Your task to perform on an android device: Toggle the flashlight Image 0: 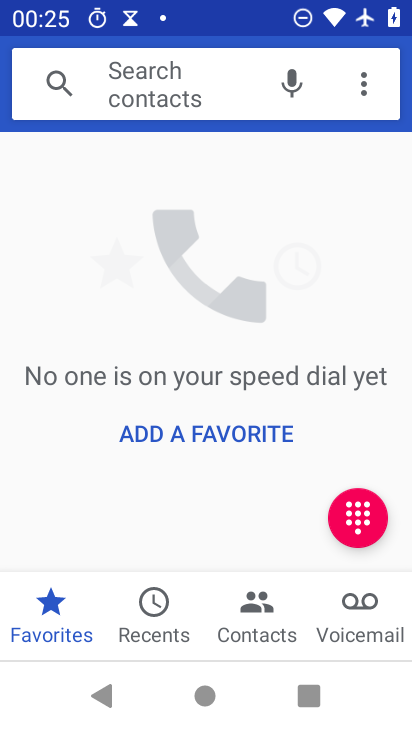
Step 0: press back button
Your task to perform on an android device: Toggle the flashlight Image 1: 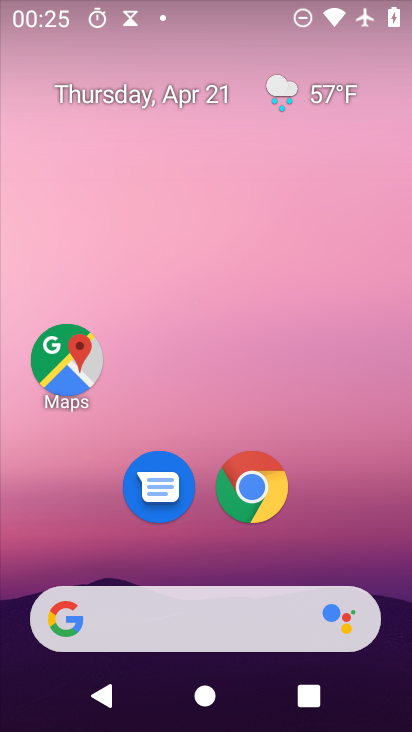
Step 1: drag from (325, 511) to (249, 43)
Your task to perform on an android device: Toggle the flashlight Image 2: 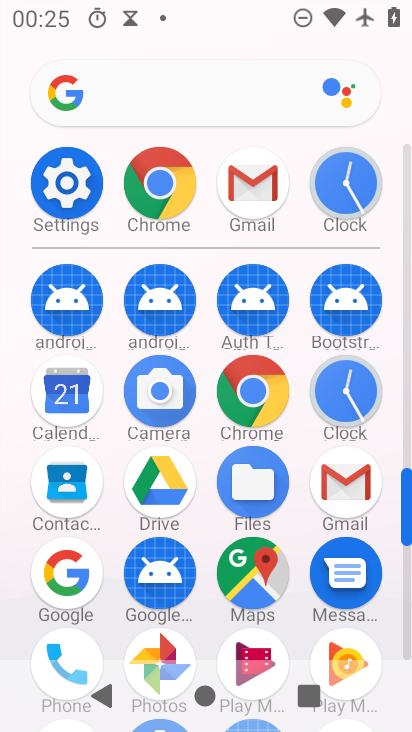
Step 2: click (60, 175)
Your task to perform on an android device: Toggle the flashlight Image 3: 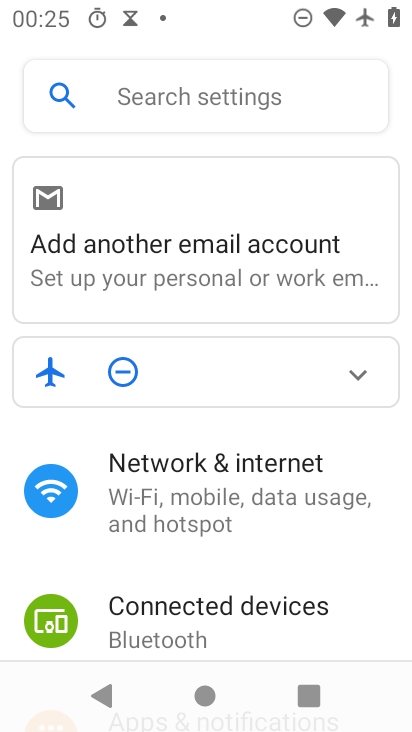
Step 3: drag from (295, 560) to (302, 164)
Your task to perform on an android device: Toggle the flashlight Image 4: 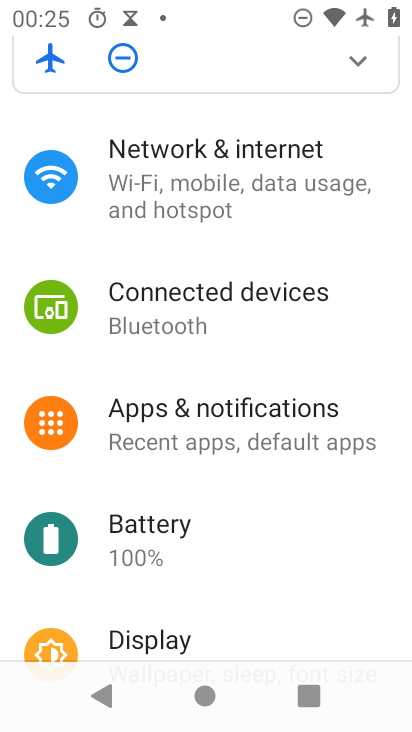
Step 4: click (283, 175)
Your task to perform on an android device: Toggle the flashlight Image 5: 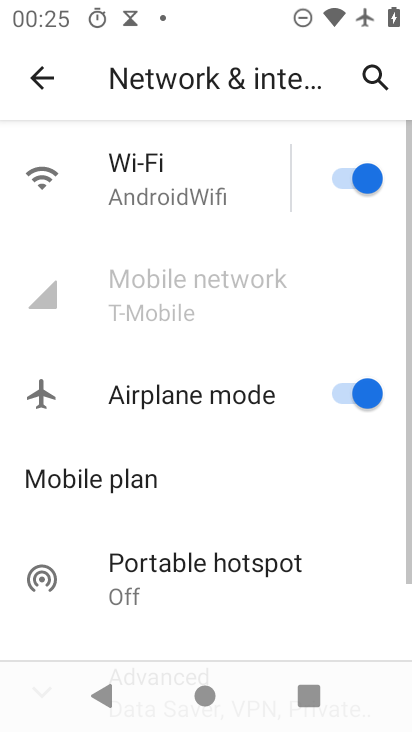
Step 5: drag from (214, 541) to (210, 189)
Your task to perform on an android device: Toggle the flashlight Image 6: 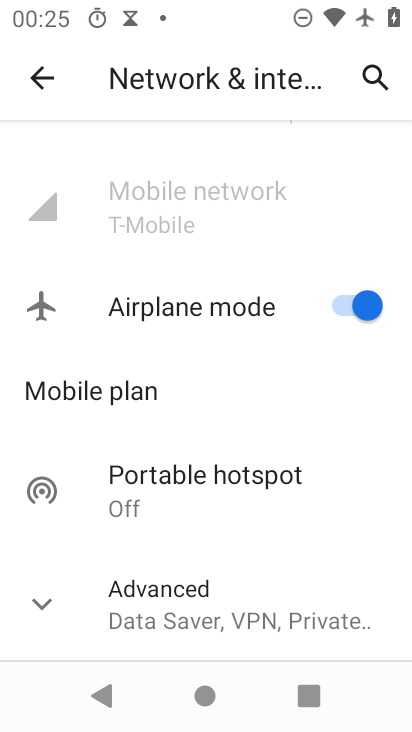
Step 6: click (68, 602)
Your task to perform on an android device: Toggle the flashlight Image 7: 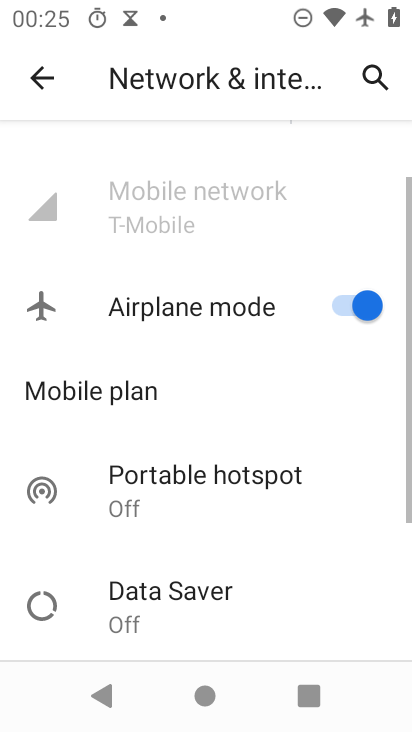
Step 7: drag from (262, 567) to (233, 197)
Your task to perform on an android device: Toggle the flashlight Image 8: 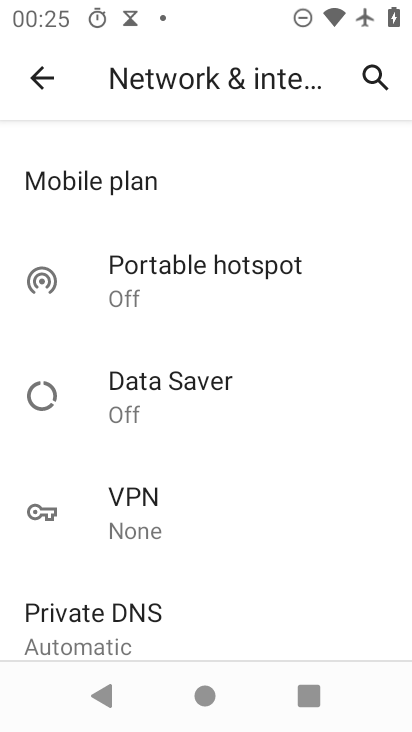
Step 8: drag from (247, 494) to (242, 180)
Your task to perform on an android device: Toggle the flashlight Image 9: 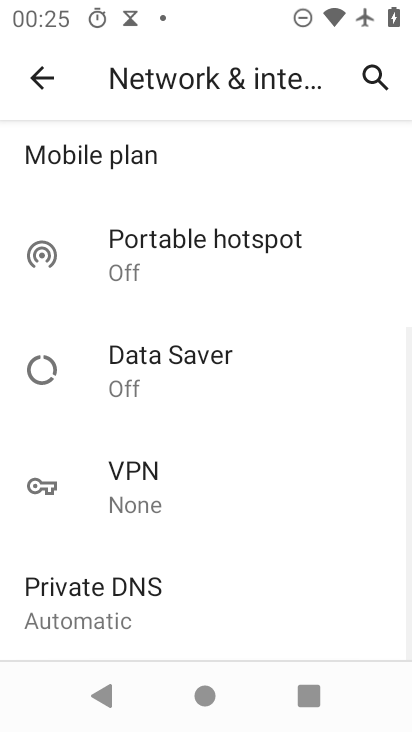
Step 9: click (27, 78)
Your task to perform on an android device: Toggle the flashlight Image 10: 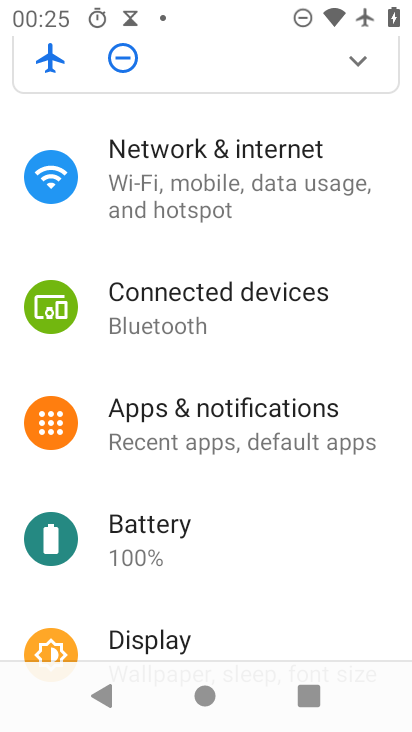
Step 10: click (208, 319)
Your task to perform on an android device: Toggle the flashlight Image 11: 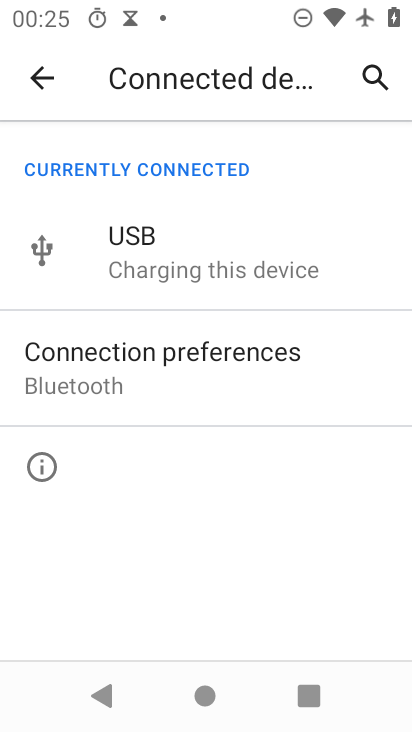
Step 11: click (34, 95)
Your task to perform on an android device: Toggle the flashlight Image 12: 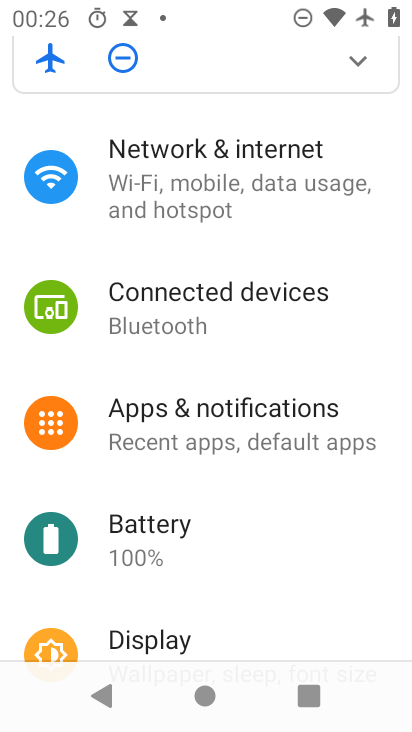
Step 12: click (235, 451)
Your task to perform on an android device: Toggle the flashlight Image 13: 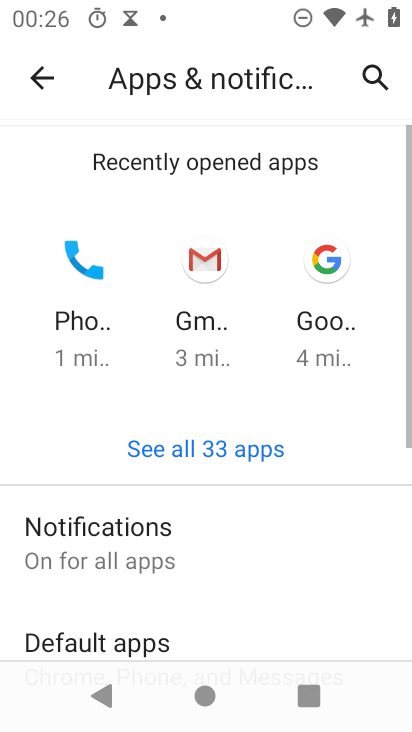
Step 13: drag from (272, 555) to (264, 184)
Your task to perform on an android device: Toggle the flashlight Image 14: 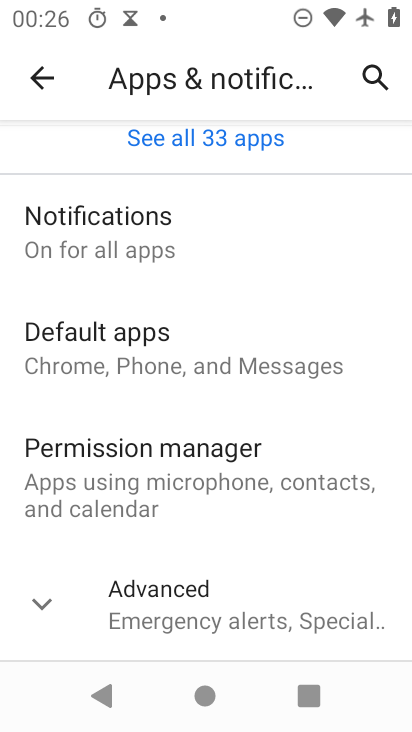
Step 14: drag from (300, 532) to (284, 190)
Your task to perform on an android device: Toggle the flashlight Image 15: 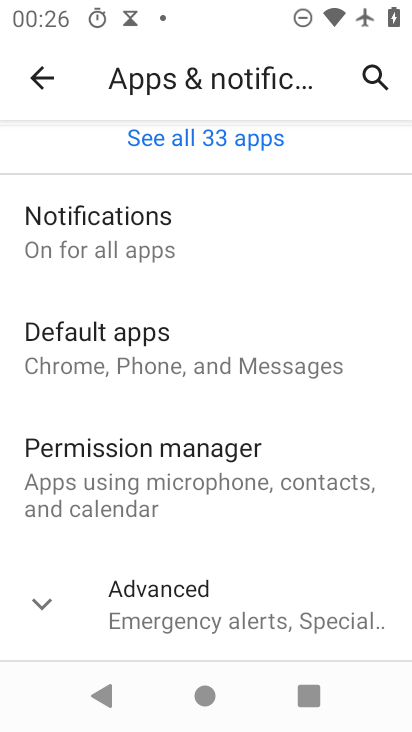
Step 15: click (28, 604)
Your task to perform on an android device: Toggle the flashlight Image 16: 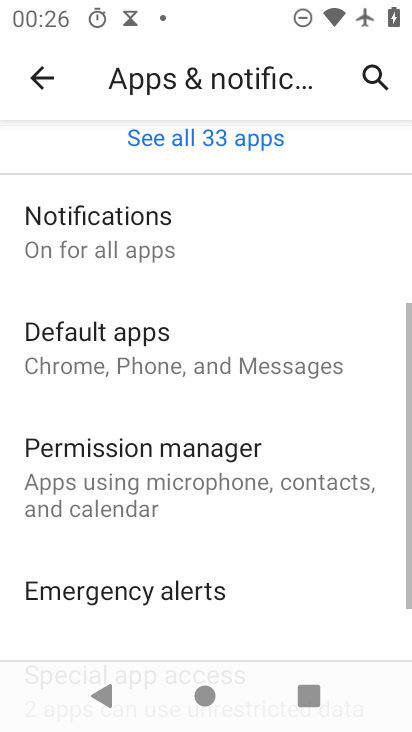
Step 16: drag from (382, 529) to (369, 239)
Your task to perform on an android device: Toggle the flashlight Image 17: 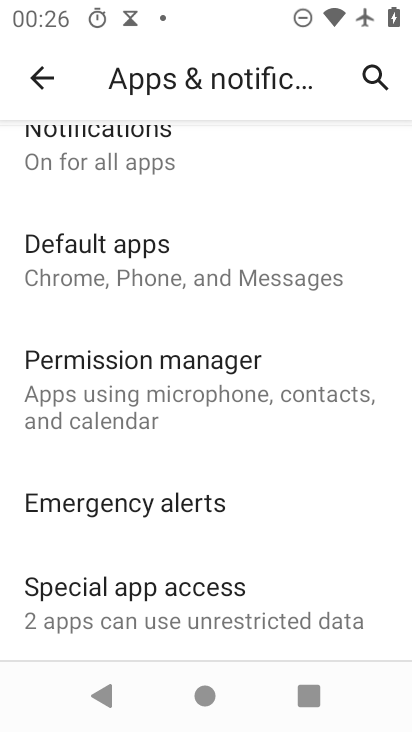
Step 17: click (36, 85)
Your task to perform on an android device: Toggle the flashlight Image 18: 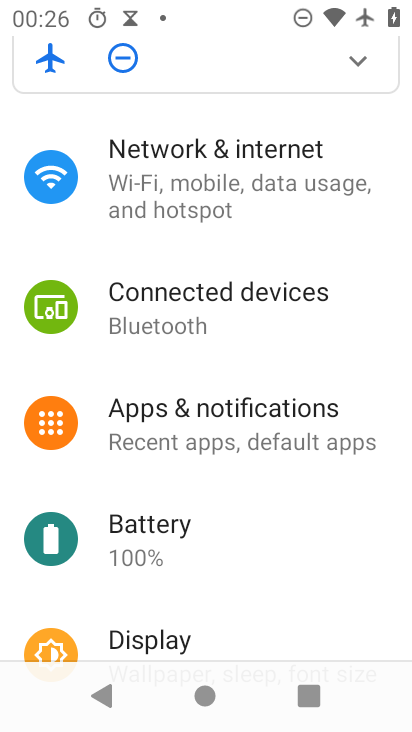
Step 18: click (301, 181)
Your task to perform on an android device: Toggle the flashlight Image 19: 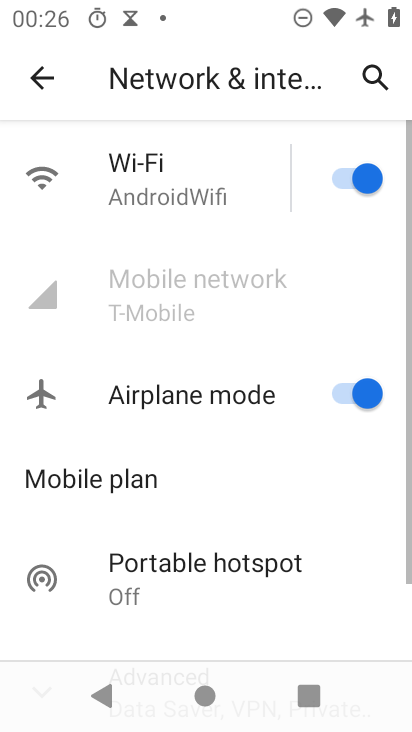
Step 19: drag from (267, 455) to (248, 111)
Your task to perform on an android device: Toggle the flashlight Image 20: 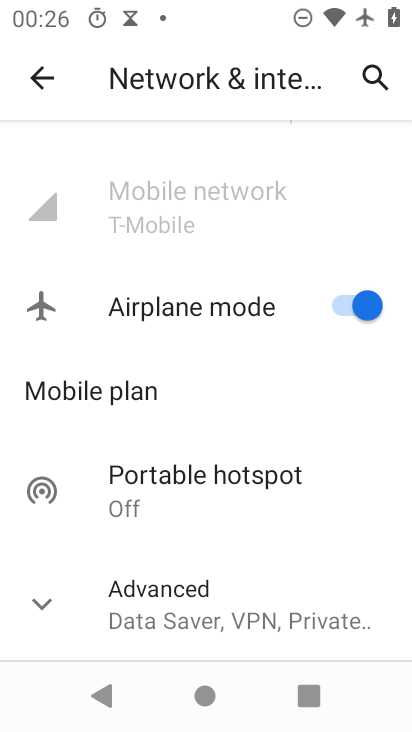
Step 20: drag from (245, 533) to (237, 325)
Your task to perform on an android device: Toggle the flashlight Image 21: 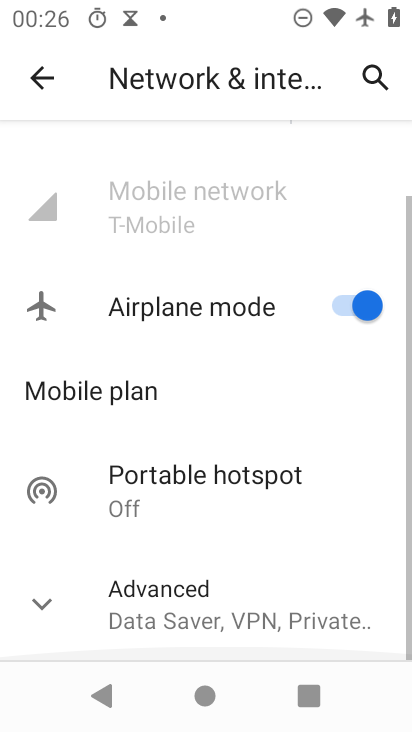
Step 21: click (70, 590)
Your task to perform on an android device: Toggle the flashlight Image 22: 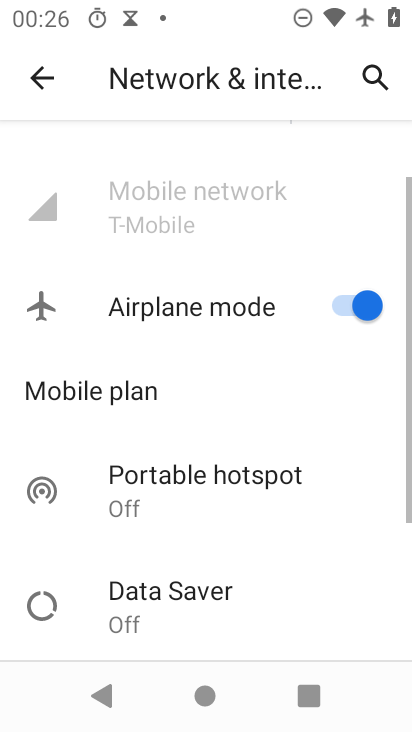
Step 22: task complete